Your task to perform on an android device: change timer sound Image 0: 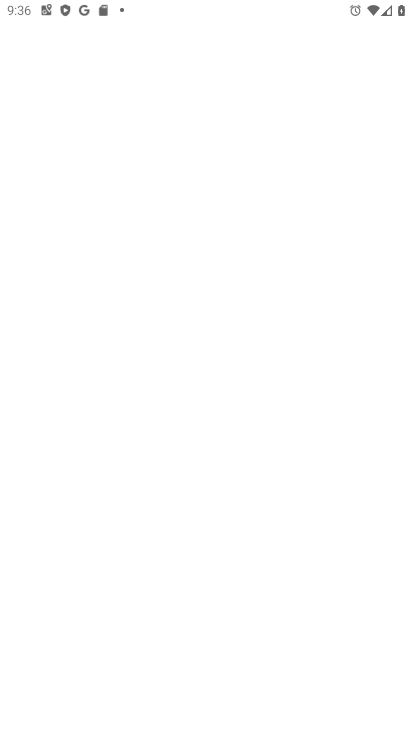
Step 0: press home button
Your task to perform on an android device: change timer sound Image 1: 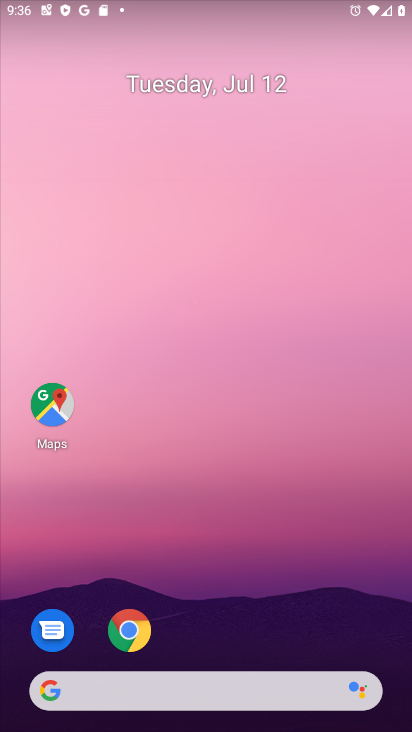
Step 1: drag from (213, 613) to (222, 92)
Your task to perform on an android device: change timer sound Image 2: 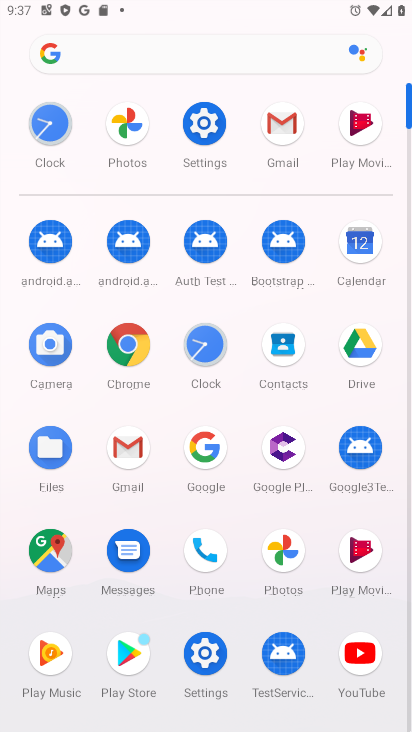
Step 2: click (202, 347)
Your task to perform on an android device: change timer sound Image 3: 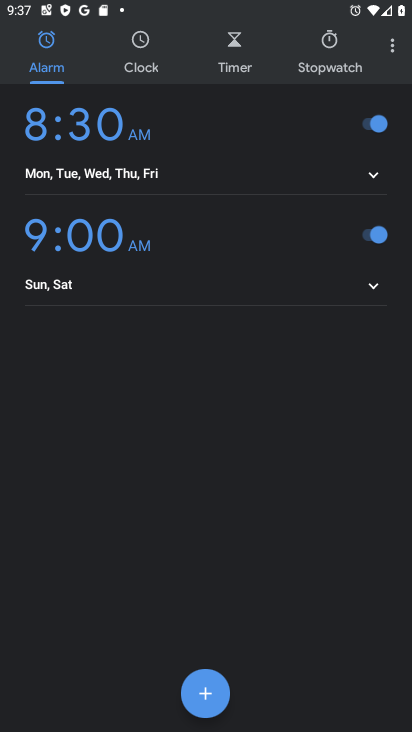
Step 3: click (384, 51)
Your task to perform on an android device: change timer sound Image 4: 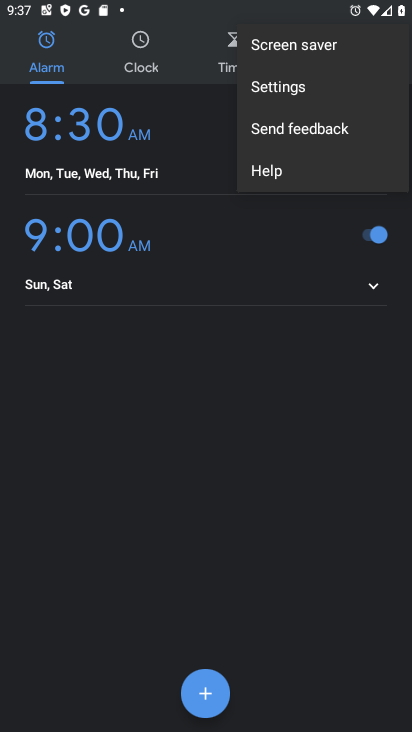
Step 4: click (273, 98)
Your task to perform on an android device: change timer sound Image 5: 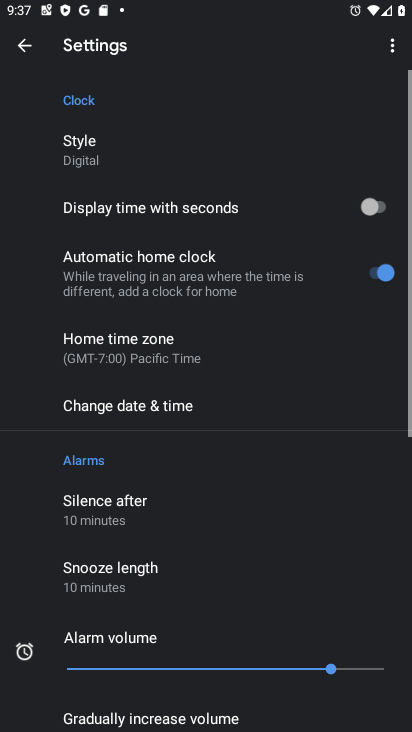
Step 5: drag from (131, 624) to (174, 312)
Your task to perform on an android device: change timer sound Image 6: 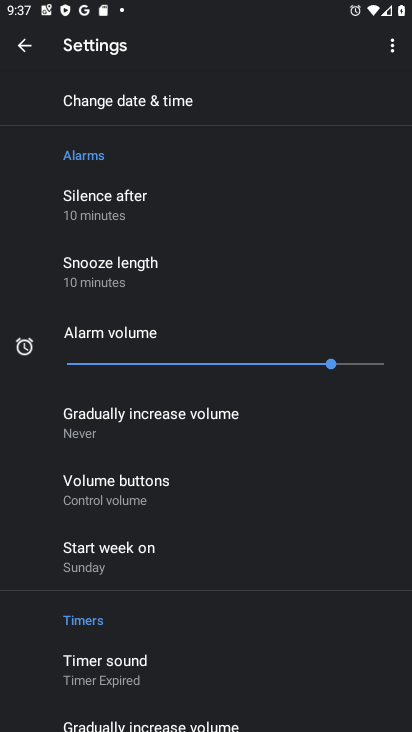
Step 6: click (144, 672)
Your task to perform on an android device: change timer sound Image 7: 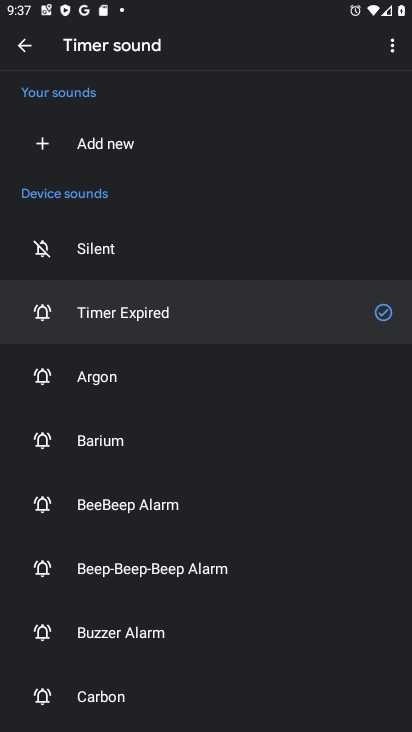
Step 7: click (135, 384)
Your task to perform on an android device: change timer sound Image 8: 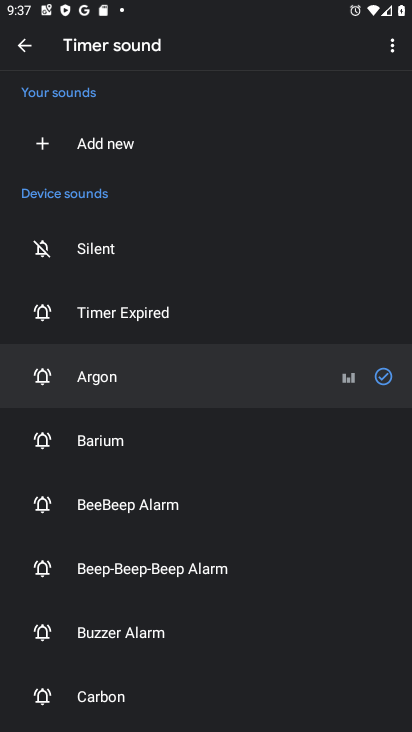
Step 8: task complete